Your task to perform on an android device: What's the news this evening? Image 0: 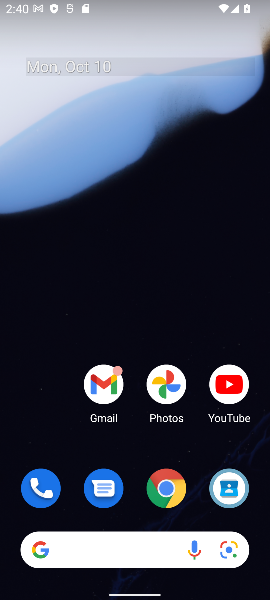
Step 0: click (94, 548)
Your task to perform on an android device: What's the news this evening? Image 1: 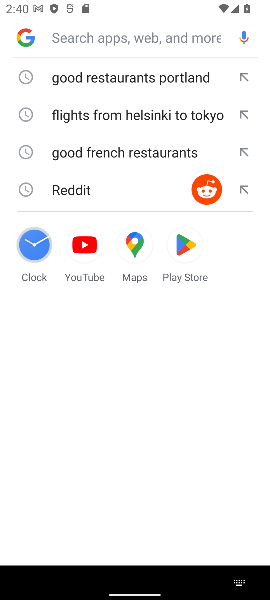
Step 1: type ""
Your task to perform on an android device: What's the news this evening? Image 2: 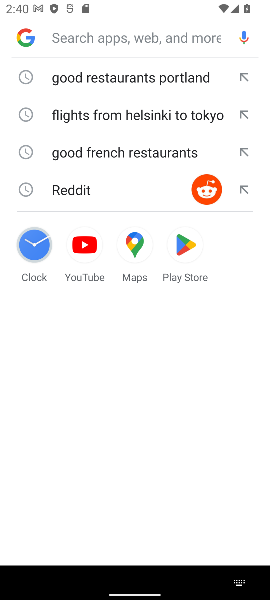
Step 2: type "What's the news this evening"
Your task to perform on an android device: What's the news this evening? Image 3: 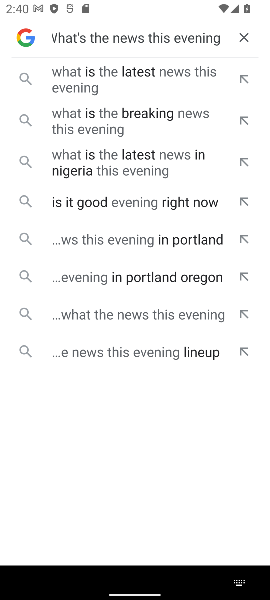
Step 3: click (106, 83)
Your task to perform on an android device: What's the news this evening? Image 4: 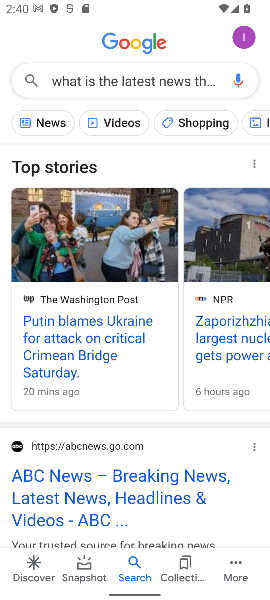
Step 4: task complete